Your task to perform on an android device: Go to Yahoo.com Image 0: 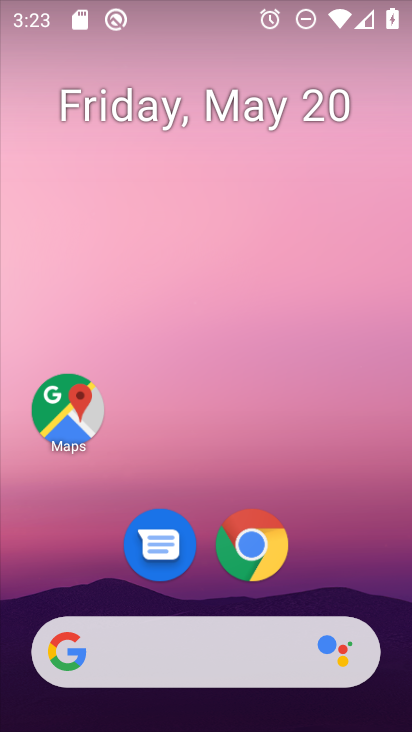
Step 0: click (258, 546)
Your task to perform on an android device: Go to Yahoo.com Image 1: 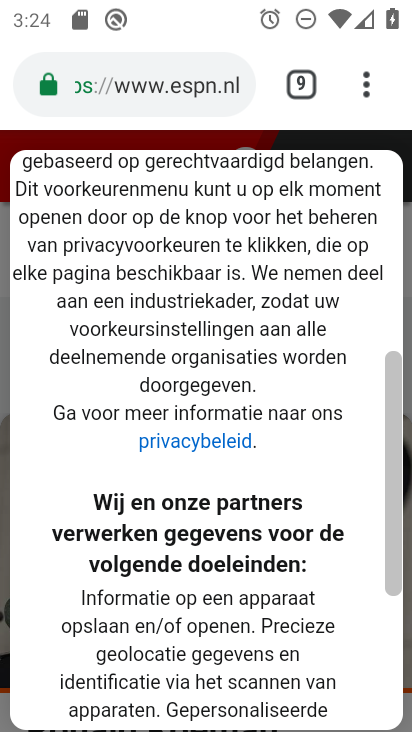
Step 1: click (379, 82)
Your task to perform on an android device: Go to Yahoo.com Image 2: 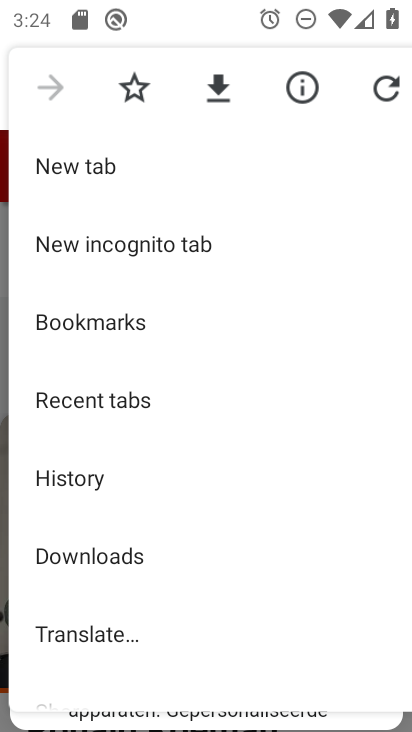
Step 2: click (88, 161)
Your task to perform on an android device: Go to Yahoo.com Image 3: 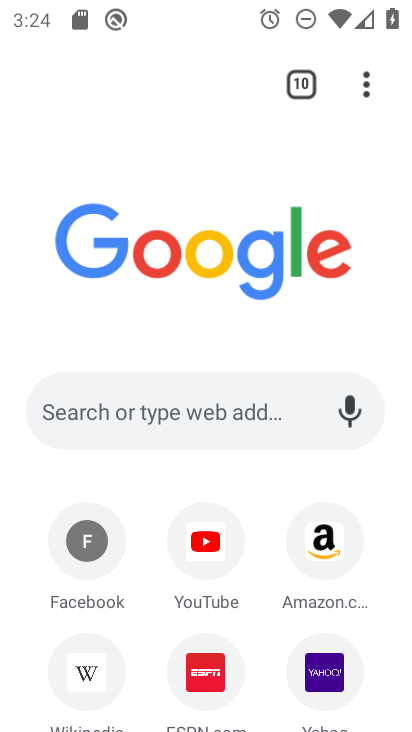
Step 3: click (327, 670)
Your task to perform on an android device: Go to Yahoo.com Image 4: 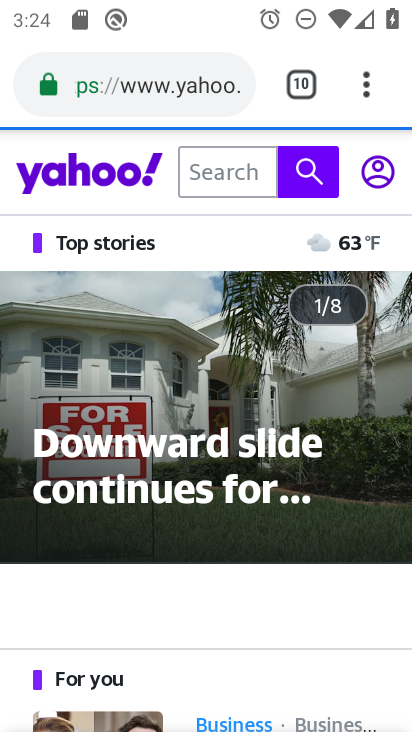
Step 4: task complete